Your task to perform on an android device: Open Youtube and go to "Your channel" Image 0: 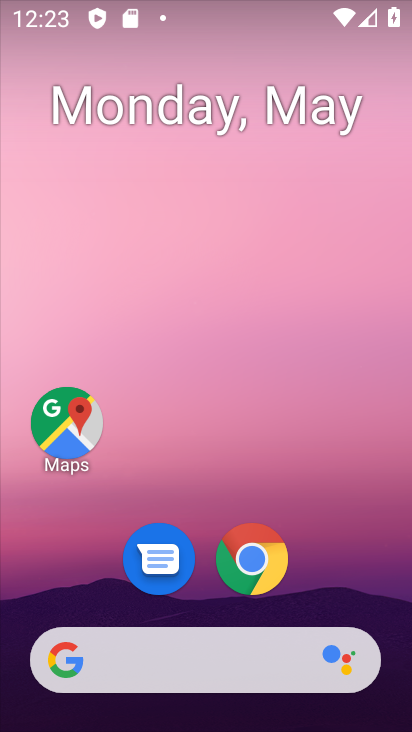
Step 0: drag from (263, 721) to (185, 9)
Your task to perform on an android device: Open Youtube and go to "Your channel" Image 1: 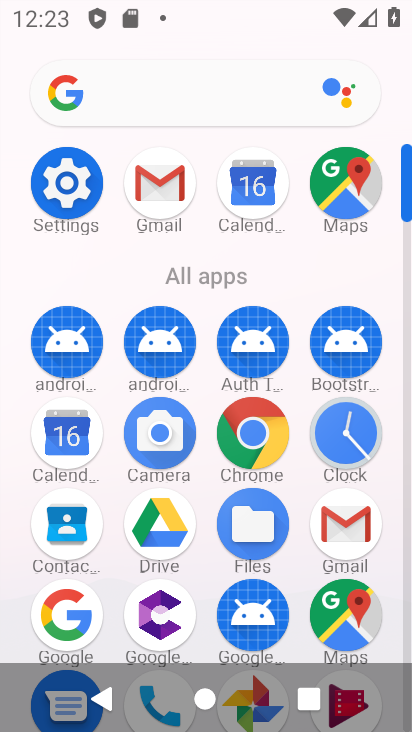
Step 1: drag from (202, 575) to (211, 222)
Your task to perform on an android device: Open Youtube and go to "Your channel" Image 2: 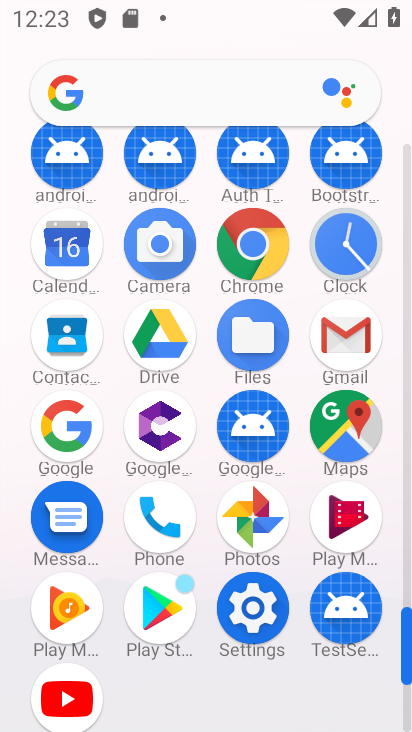
Step 2: click (63, 705)
Your task to perform on an android device: Open Youtube and go to "Your channel" Image 3: 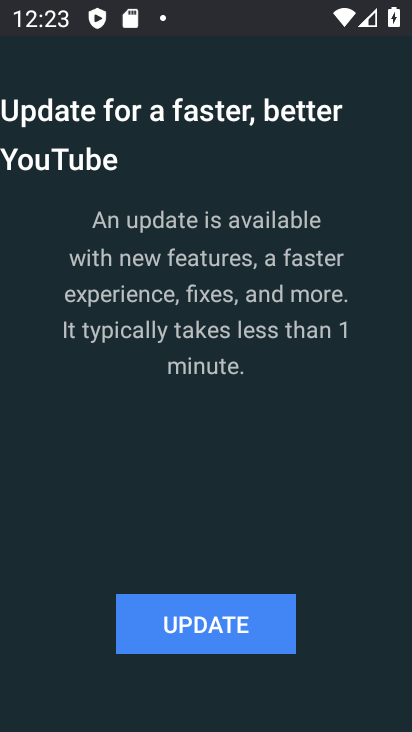
Step 3: click (245, 621)
Your task to perform on an android device: Open Youtube and go to "Your channel" Image 4: 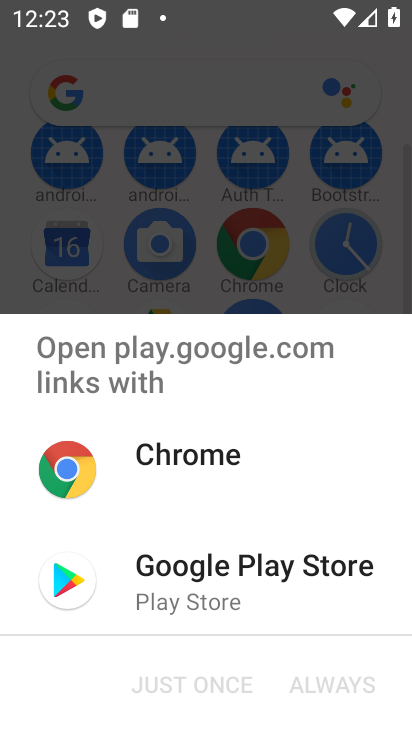
Step 4: click (246, 579)
Your task to perform on an android device: Open Youtube and go to "Your channel" Image 5: 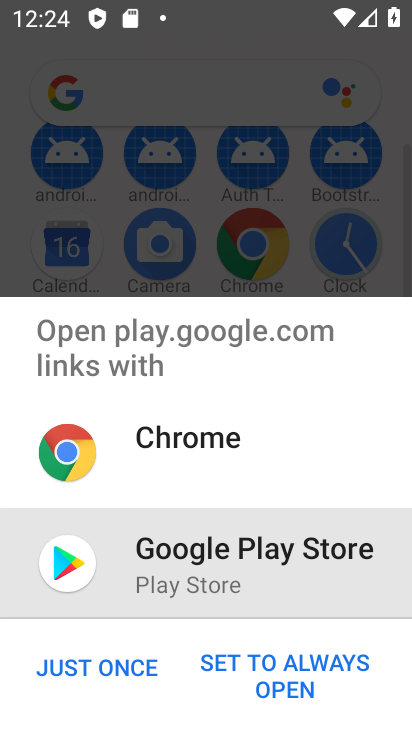
Step 5: click (284, 683)
Your task to perform on an android device: Open Youtube and go to "Your channel" Image 6: 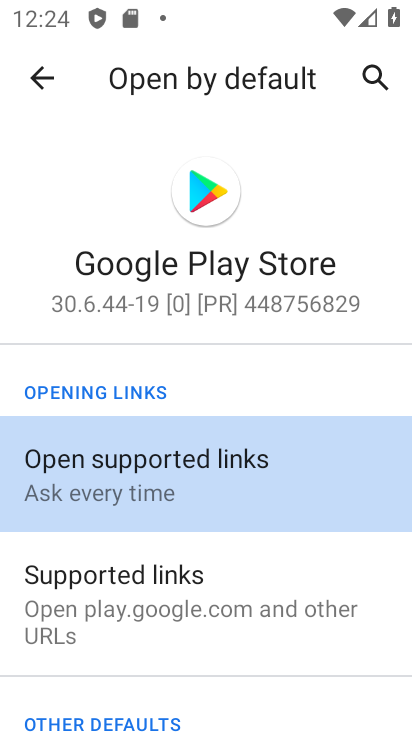
Step 6: click (52, 83)
Your task to perform on an android device: Open Youtube and go to "Your channel" Image 7: 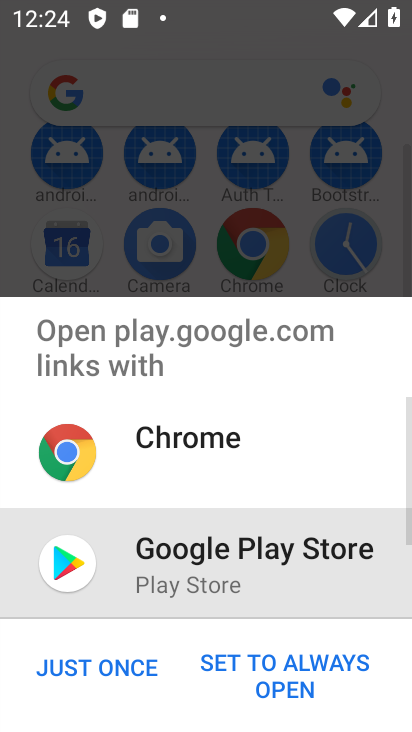
Step 7: click (245, 569)
Your task to perform on an android device: Open Youtube and go to "Your channel" Image 8: 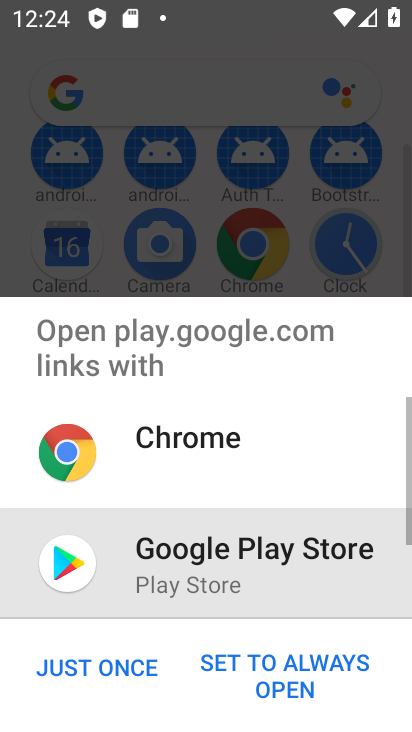
Step 8: click (312, 693)
Your task to perform on an android device: Open Youtube and go to "Your channel" Image 9: 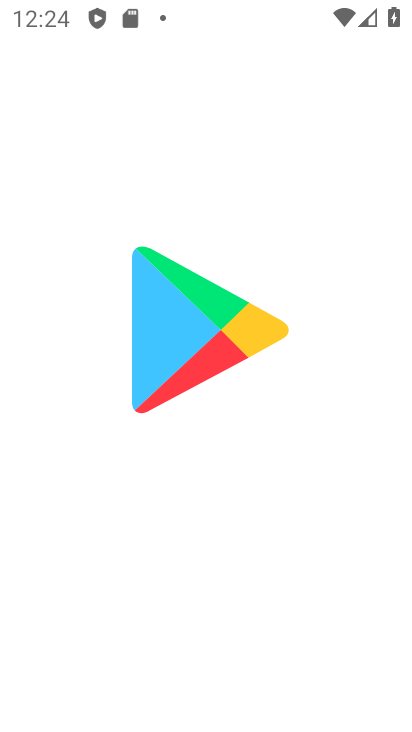
Step 9: task complete